Your task to perform on an android device: set the timer Image 0: 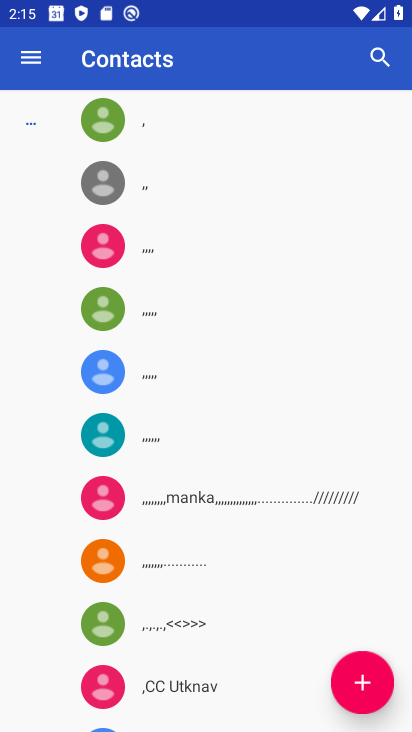
Step 0: press back button
Your task to perform on an android device: set the timer Image 1: 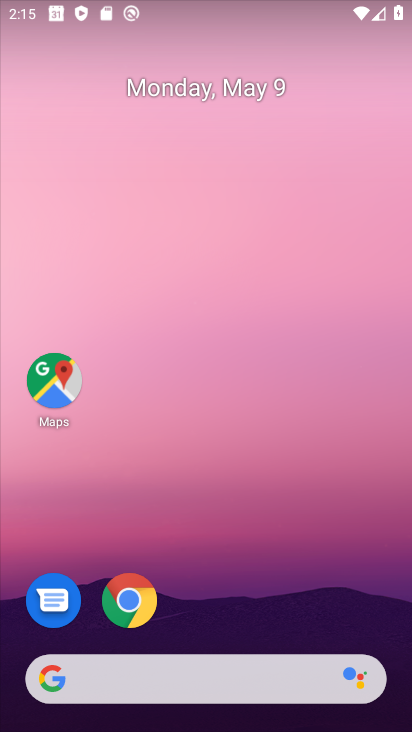
Step 1: drag from (267, 576) to (271, 44)
Your task to perform on an android device: set the timer Image 2: 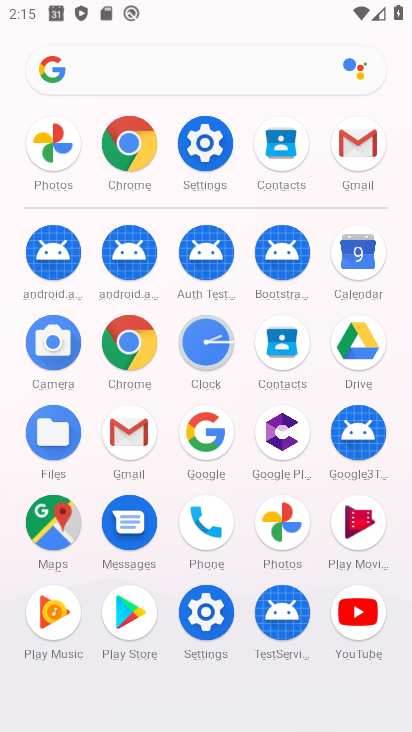
Step 2: click (207, 337)
Your task to perform on an android device: set the timer Image 3: 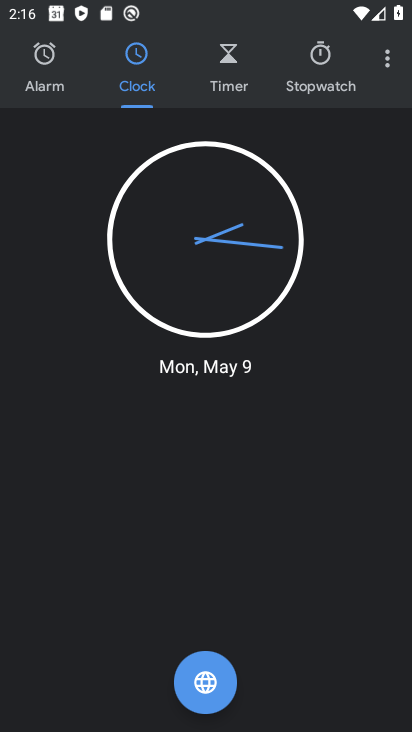
Step 3: click (239, 55)
Your task to perform on an android device: set the timer Image 4: 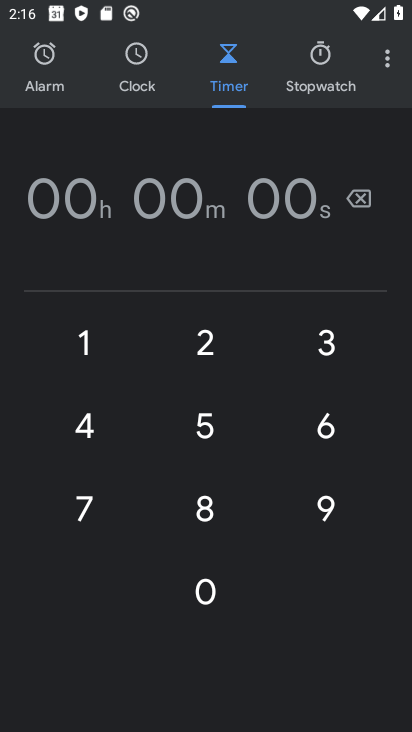
Step 4: click (194, 343)
Your task to perform on an android device: set the timer Image 5: 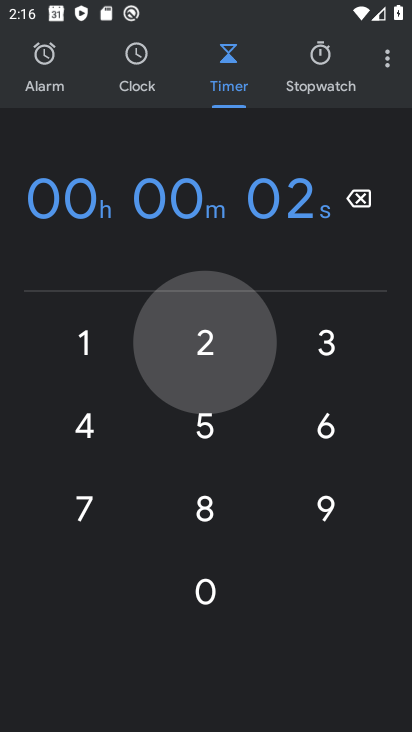
Step 5: click (193, 415)
Your task to perform on an android device: set the timer Image 6: 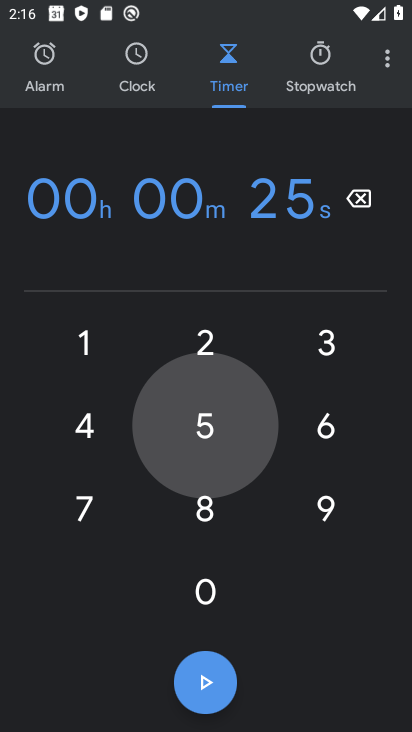
Step 6: click (93, 420)
Your task to perform on an android device: set the timer Image 7: 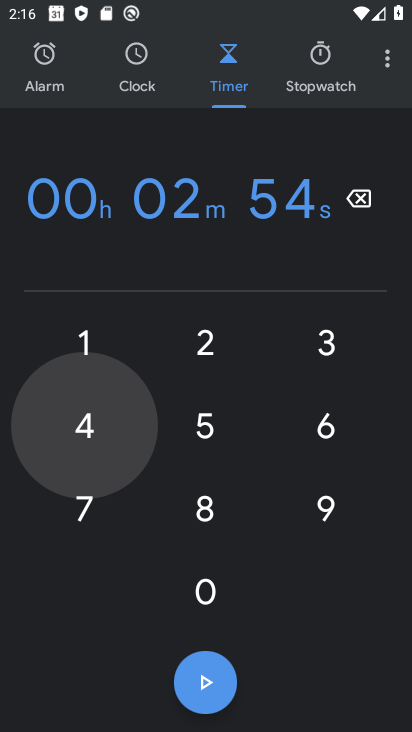
Step 7: click (81, 506)
Your task to perform on an android device: set the timer Image 8: 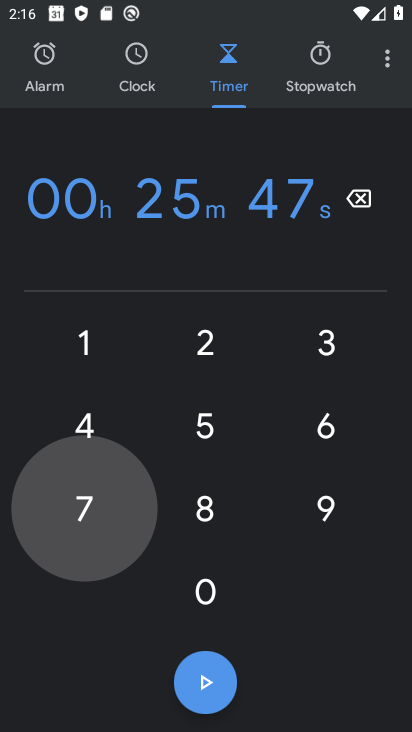
Step 8: click (187, 509)
Your task to perform on an android device: set the timer Image 9: 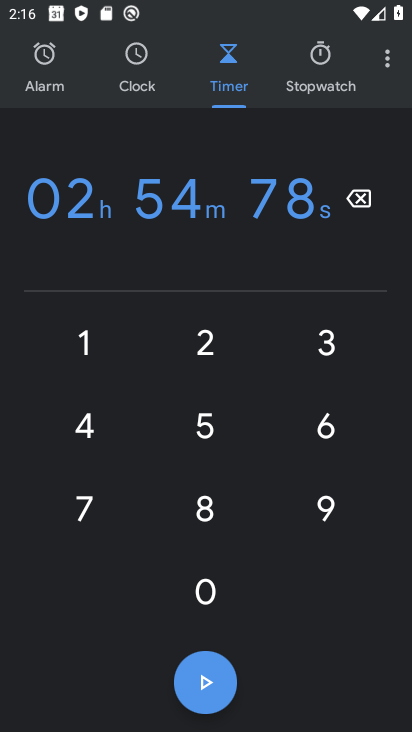
Step 9: click (215, 675)
Your task to perform on an android device: set the timer Image 10: 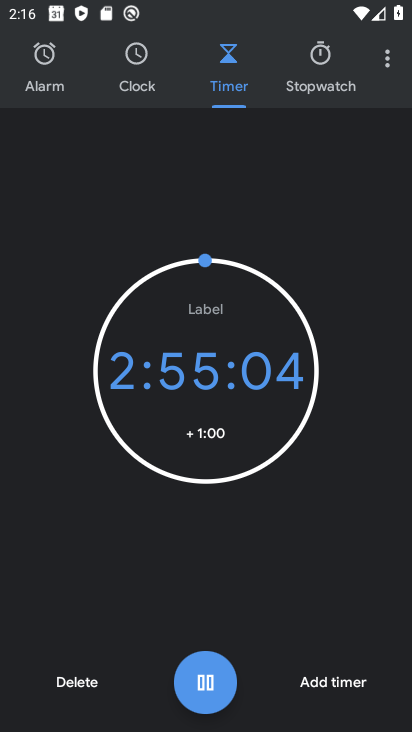
Step 10: task complete